Your task to perform on an android device: turn off smart reply in the gmail app Image 0: 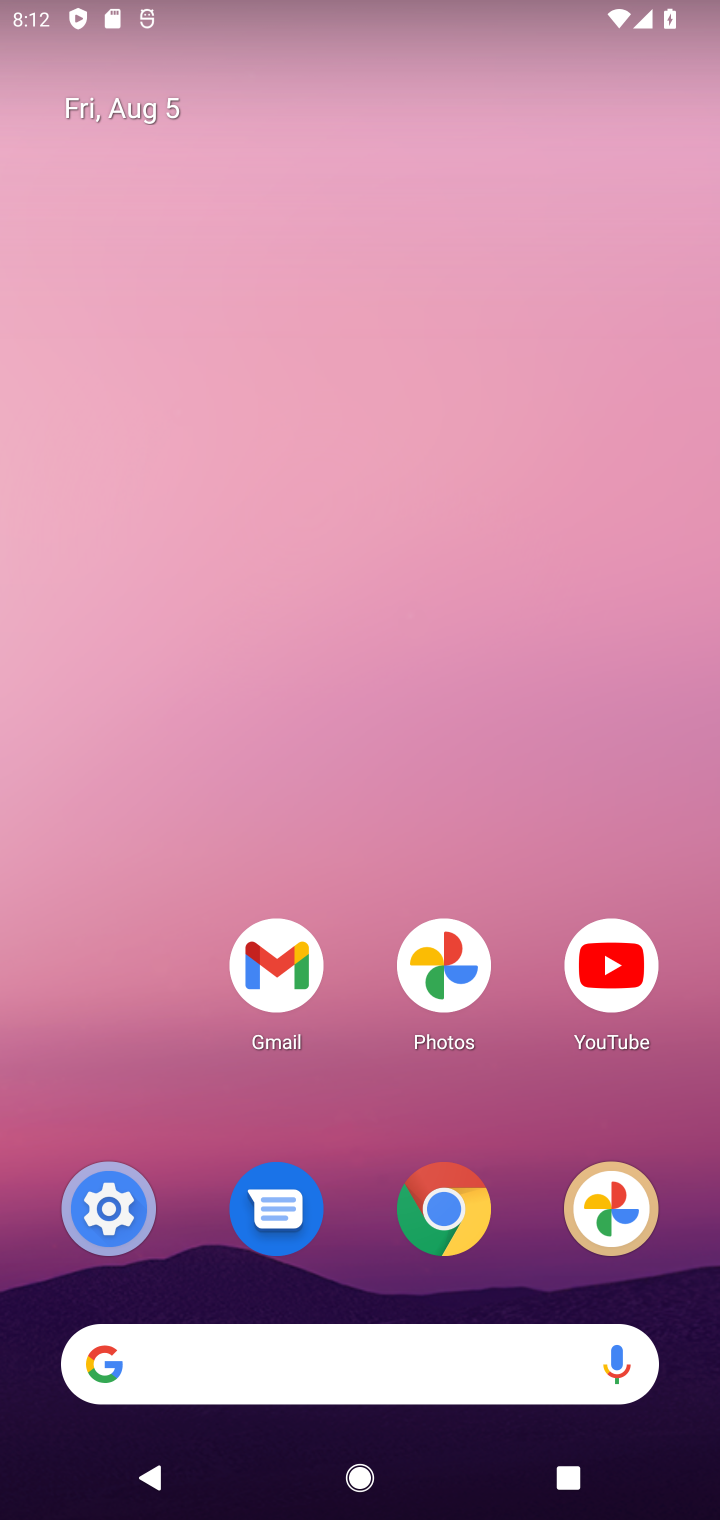
Step 0: press home button
Your task to perform on an android device: turn off smart reply in the gmail app Image 1: 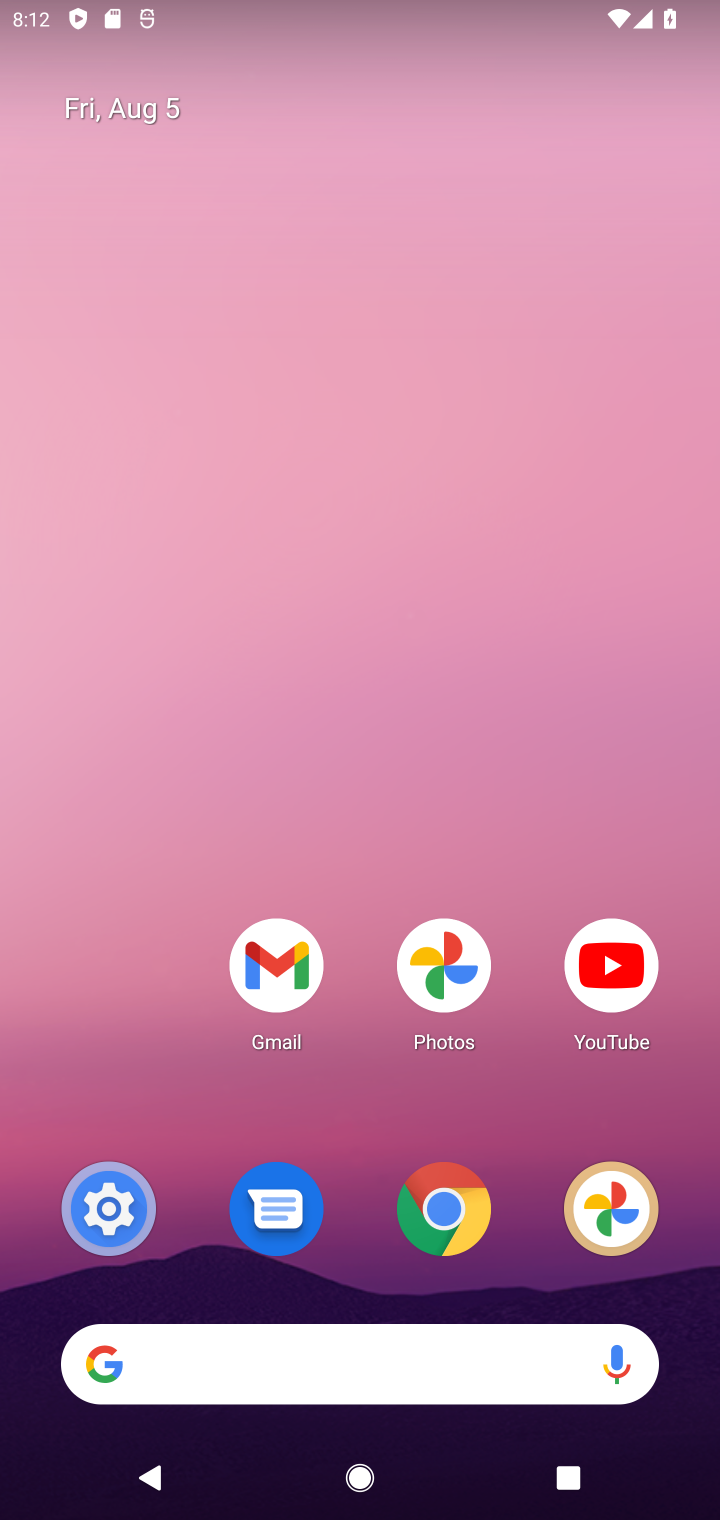
Step 1: click (277, 968)
Your task to perform on an android device: turn off smart reply in the gmail app Image 2: 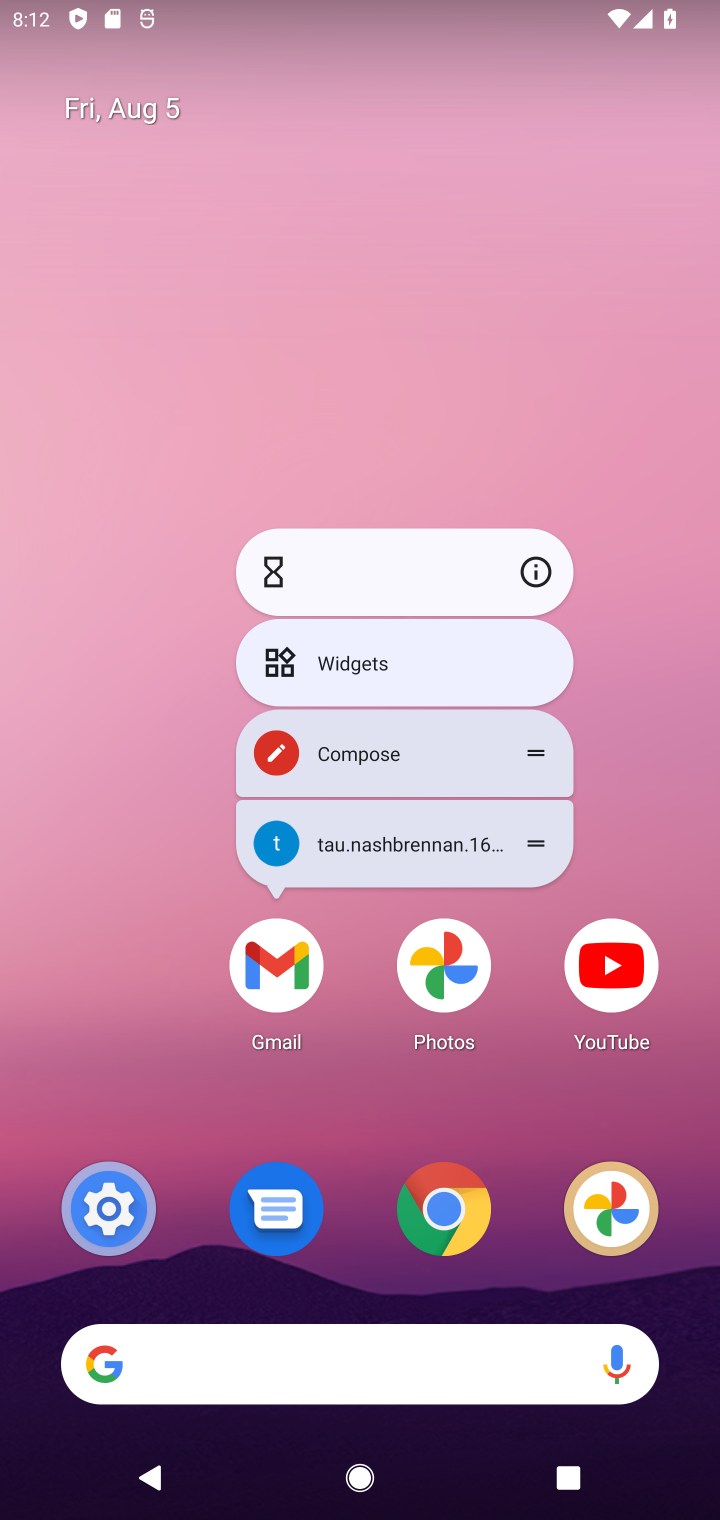
Step 2: click (277, 973)
Your task to perform on an android device: turn off smart reply in the gmail app Image 3: 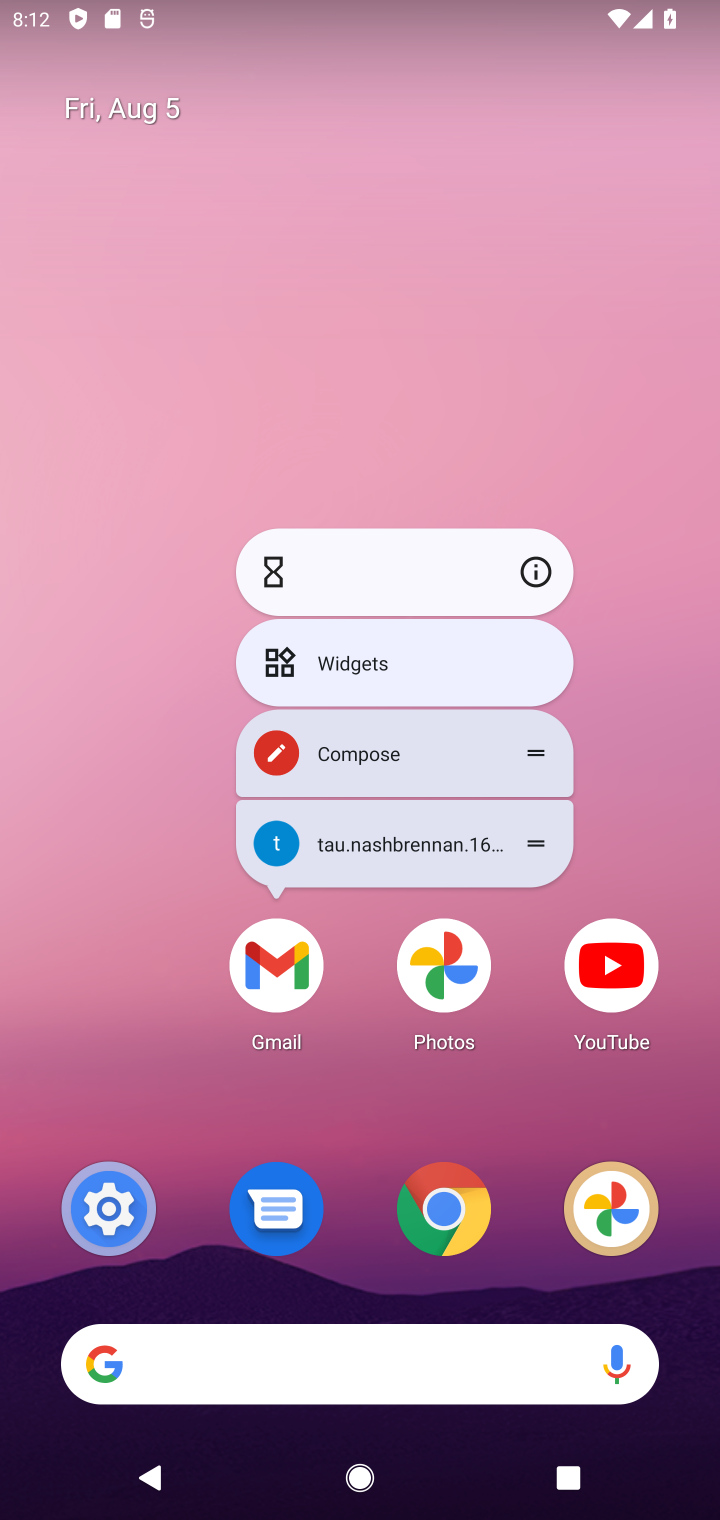
Step 3: click (277, 973)
Your task to perform on an android device: turn off smart reply in the gmail app Image 4: 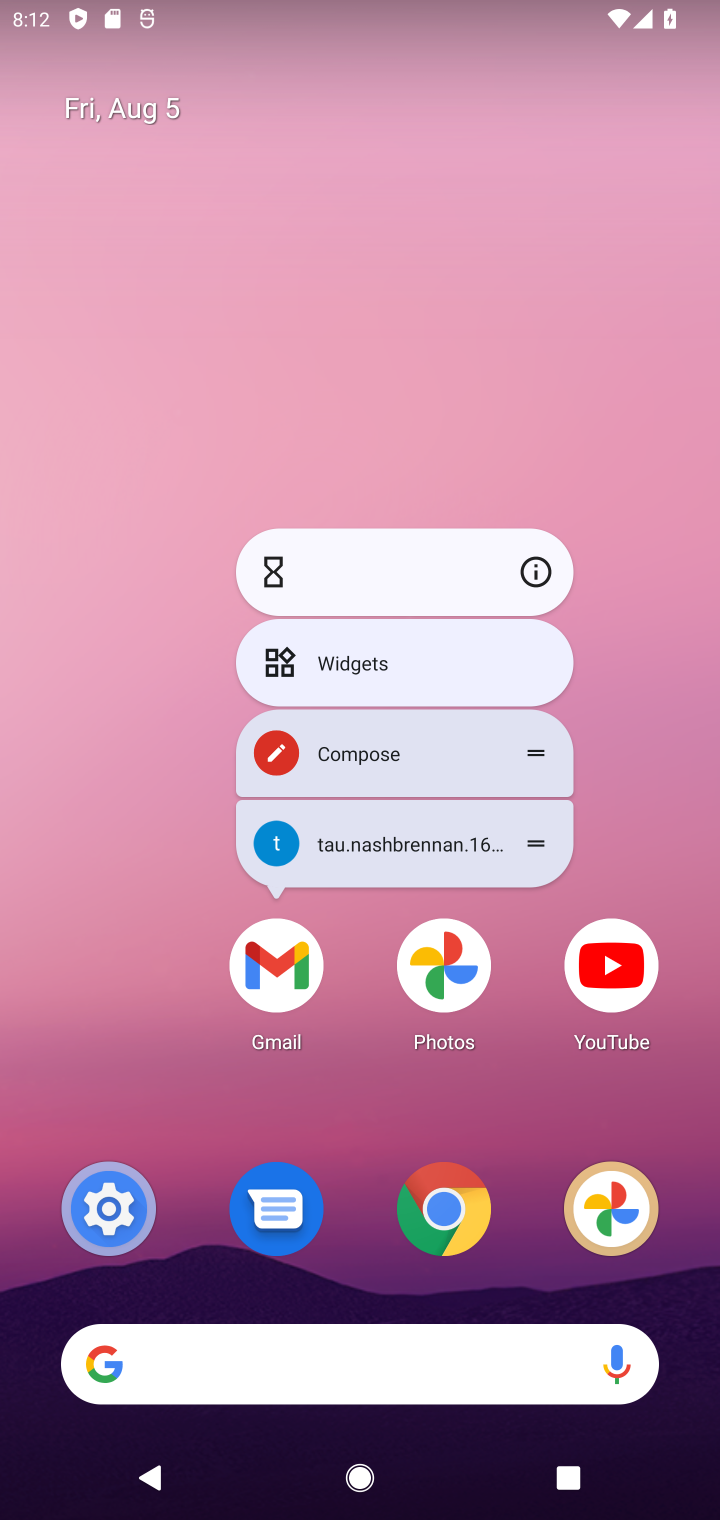
Step 4: click (279, 968)
Your task to perform on an android device: turn off smart reply in the gmail app Image 5: 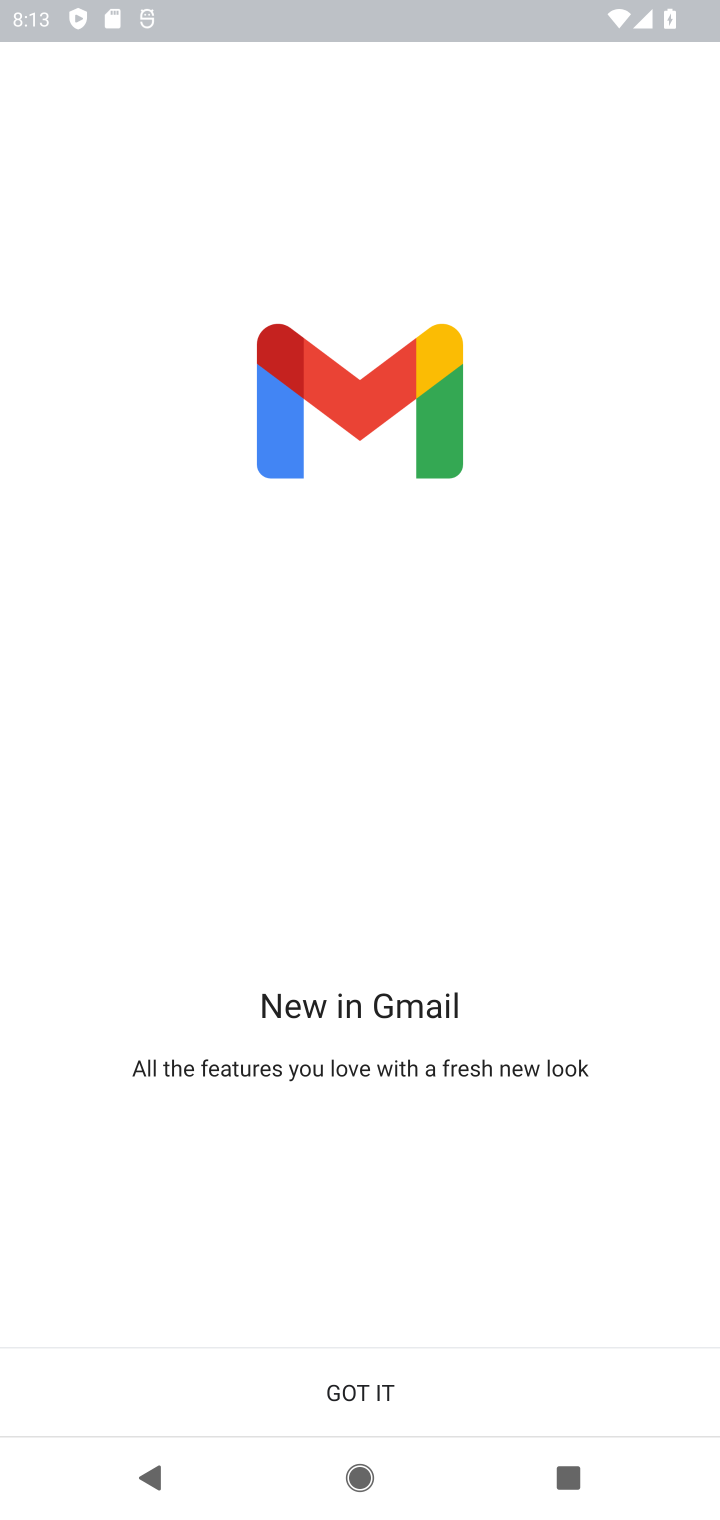
Step 5: click (386, 1402)
Your task to perform on an android device: turn off smart reply in the gmail app Image 6: 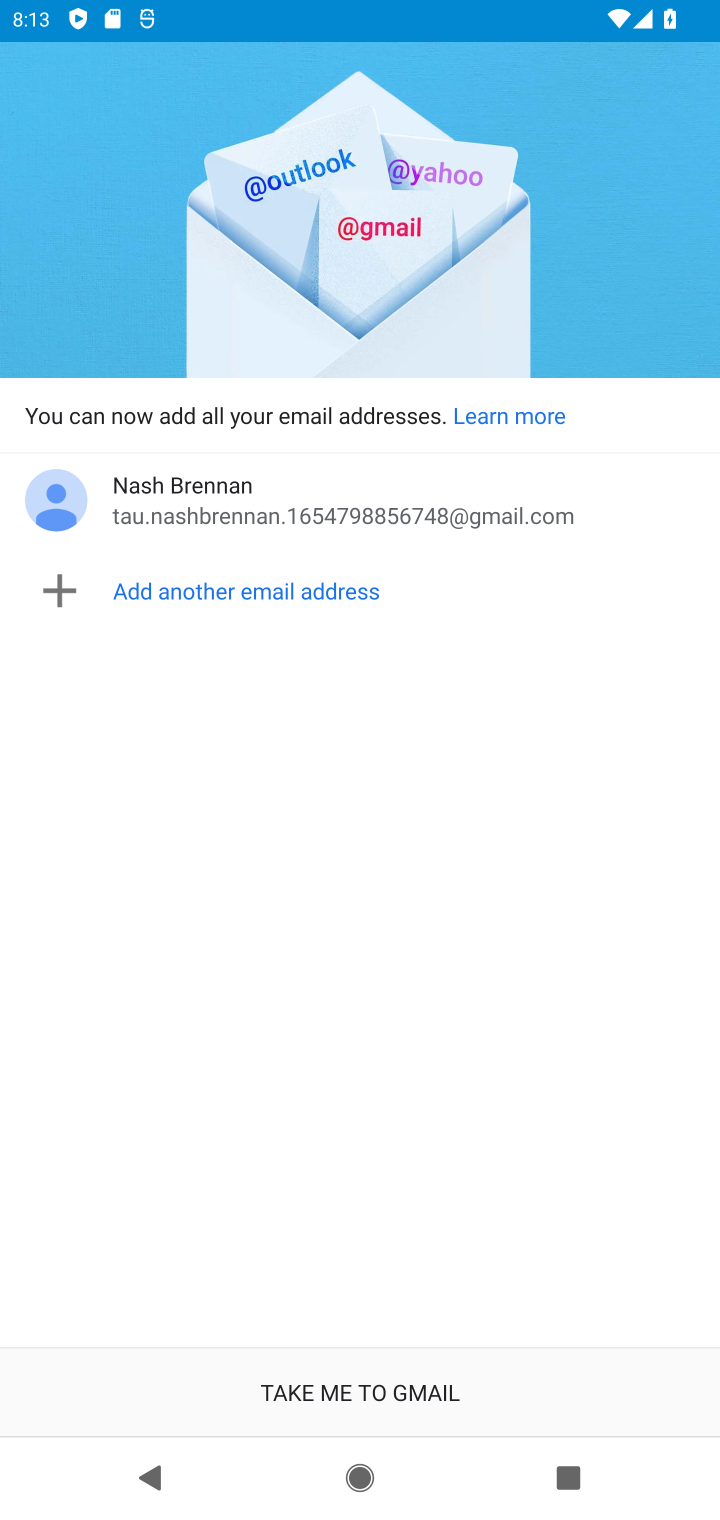
Step 6: click (386, 1394)
Your task to perform on an android device: turn off smart reply in the gmail app Image 7: 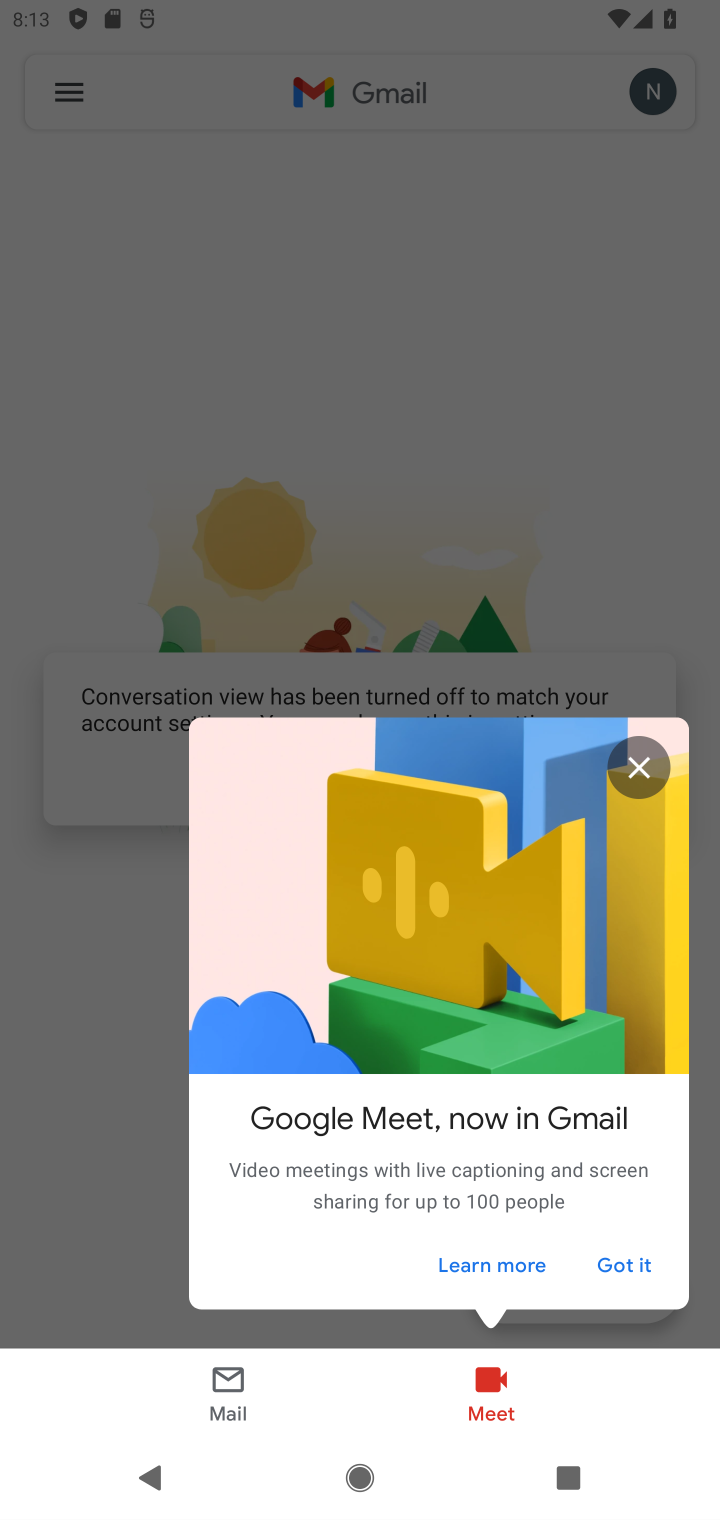
Step 7: click (595, 774)
Your task to perform on an android device: turn off smart reply in the gmail app Image 8: 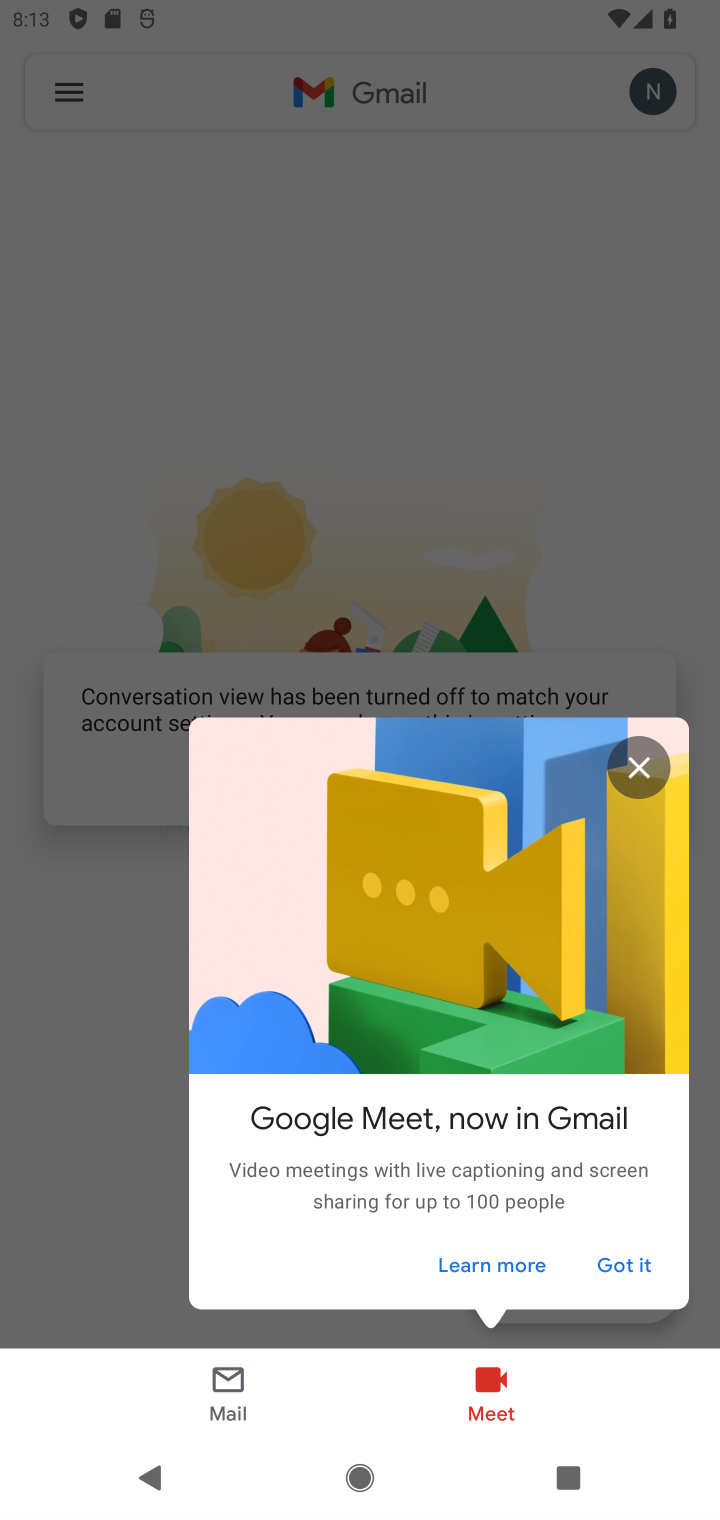
Step 8: click (616, 763)
Your task to perform on an android device: turn off smart reply in the gmail app Image 9: 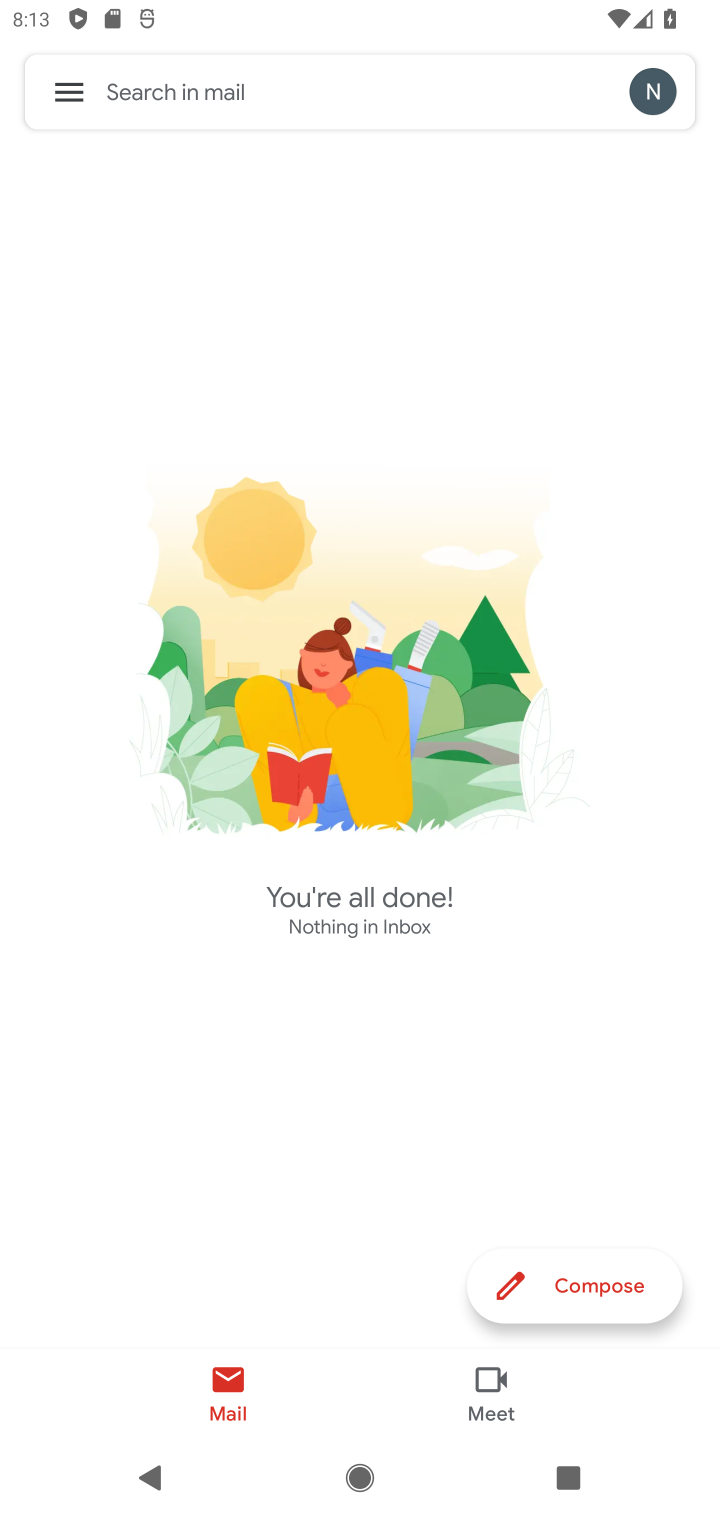
Step 9: click (59, 81)
Your task to perform on an android device: turn off smart reply in the gmail app Image 10: 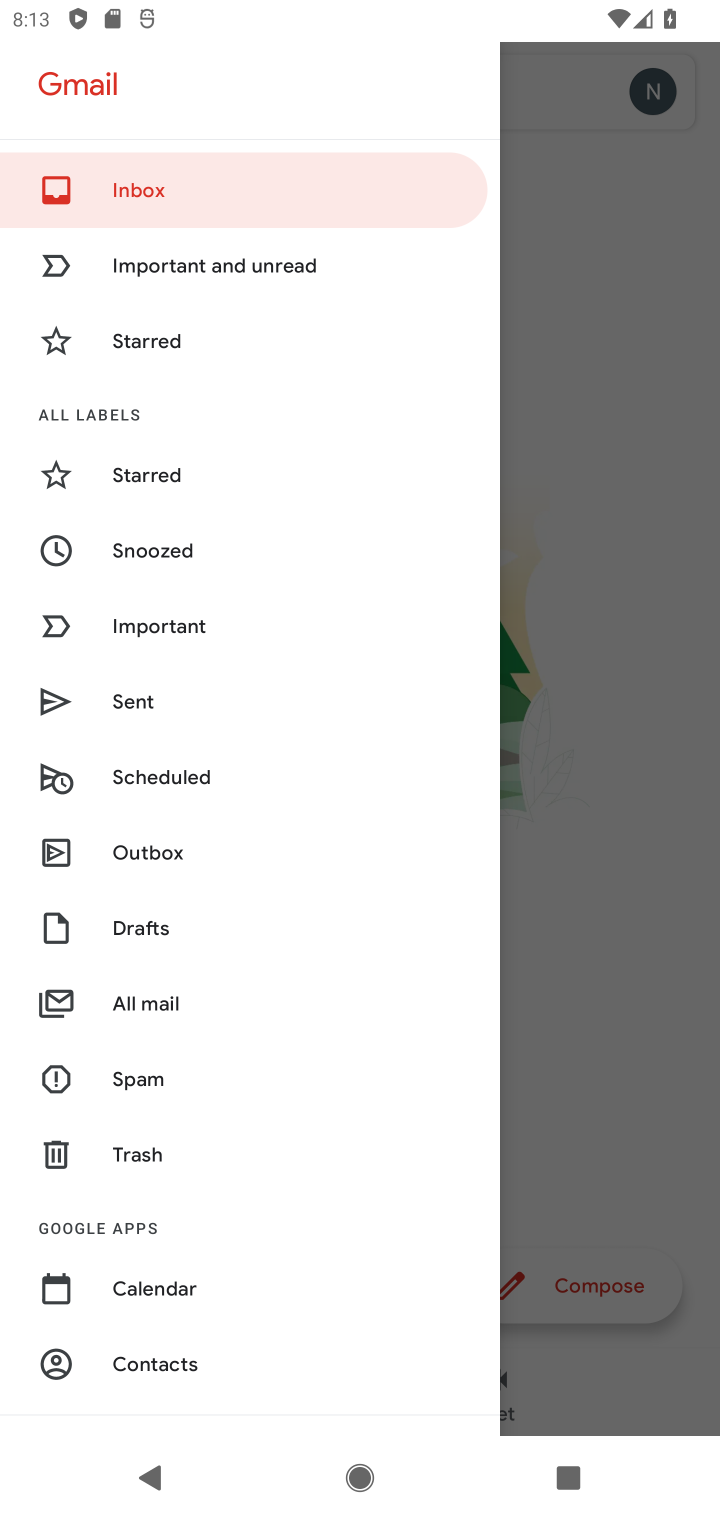
Step 10: drag from (243, 1268) to (356, 228)
Your task to perform on an android device: turn off smart reply in the gmail app Image 11: 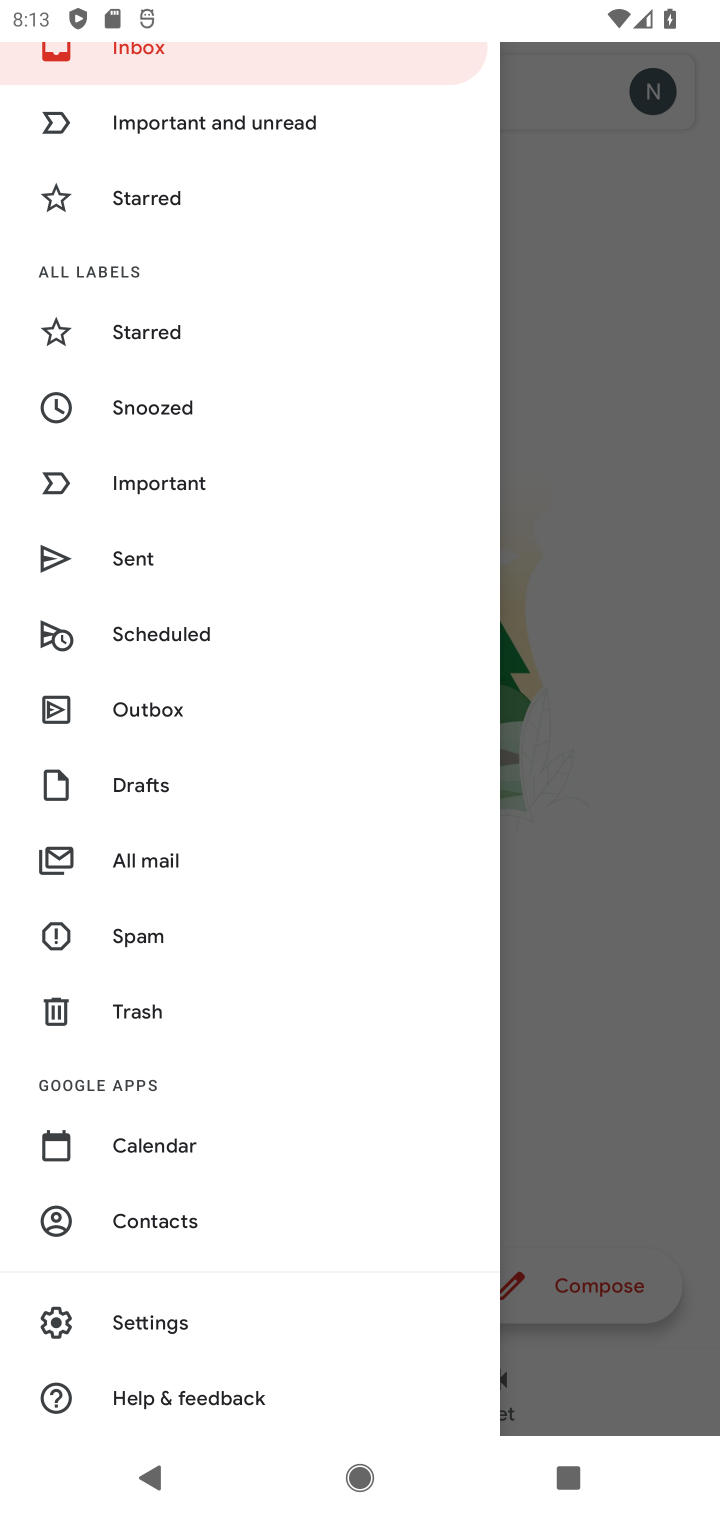
Step 11: click (158, 1321)
Your task to perform on an android device: turn off smart reply in the gmail app Image 12: 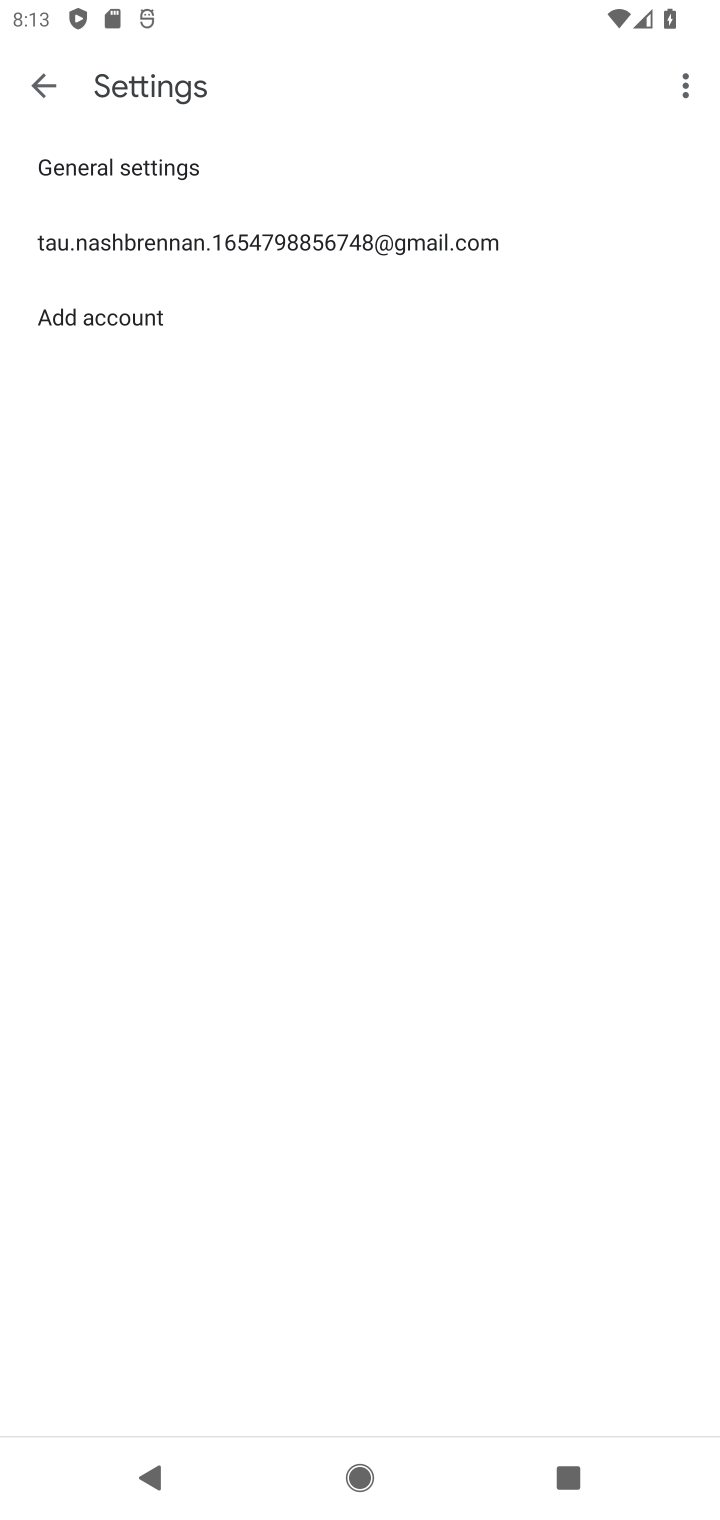
Step 12: click (182, 239)
Your task to perform on an android device: turn off smart reply in the gmail app Image 13: 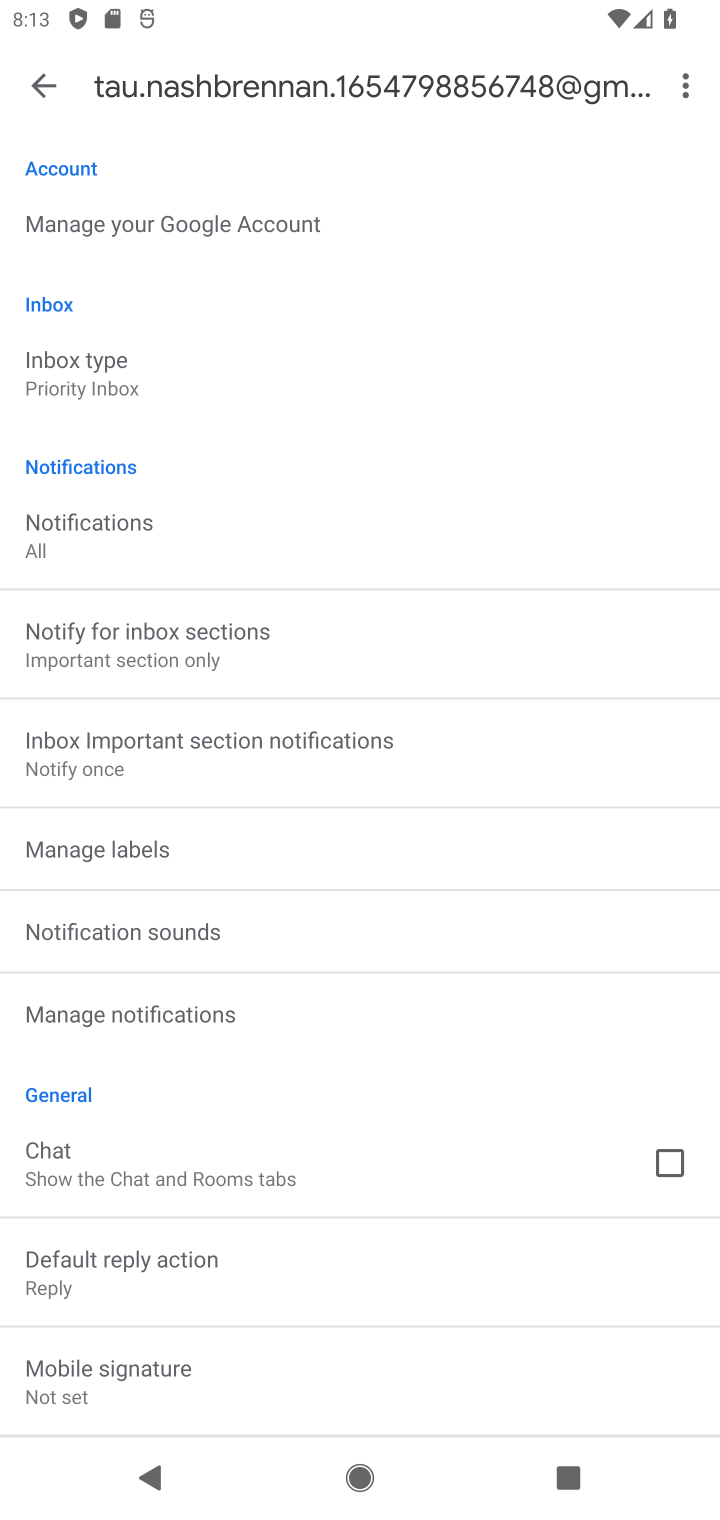
Step 13: drag from (324, 1294) to (661, 370)
Your task to perform on an android device: turn off smart reply in the gmail app Image 14: 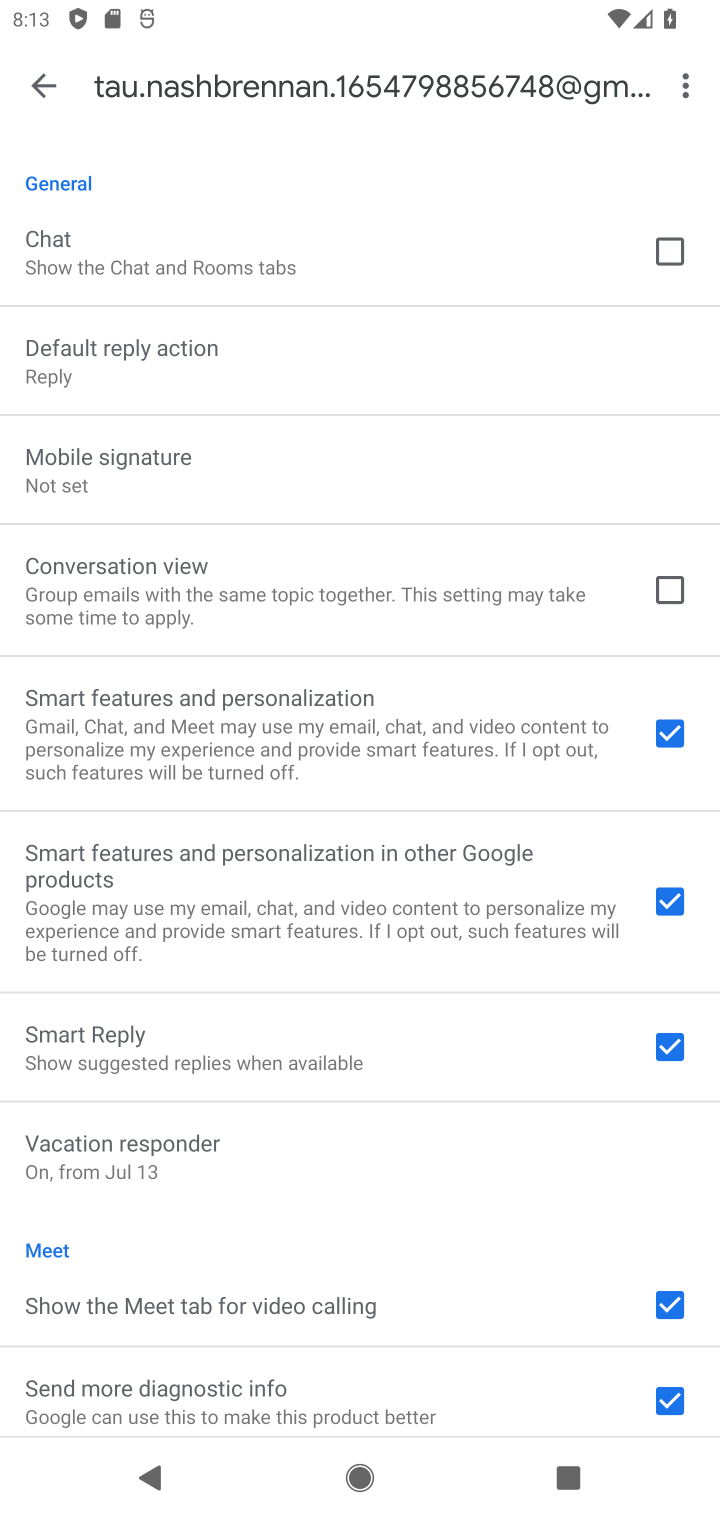
Step 14: click (663, 1036)
Your task to perform on an android device: turn off smart reply in the gmail app Image 15: 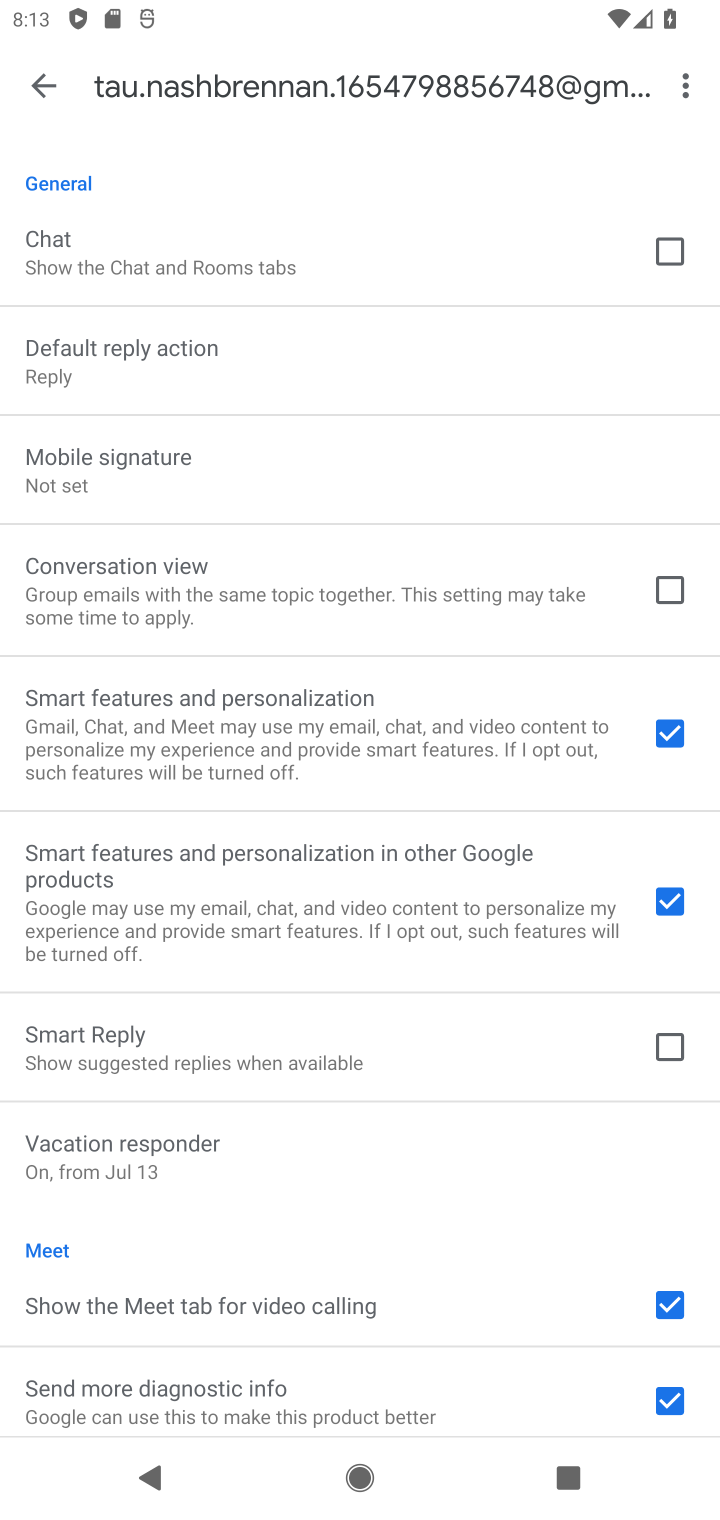
Step 15: task complete